Your task to perform on an android device: Show me recent news Image 0: 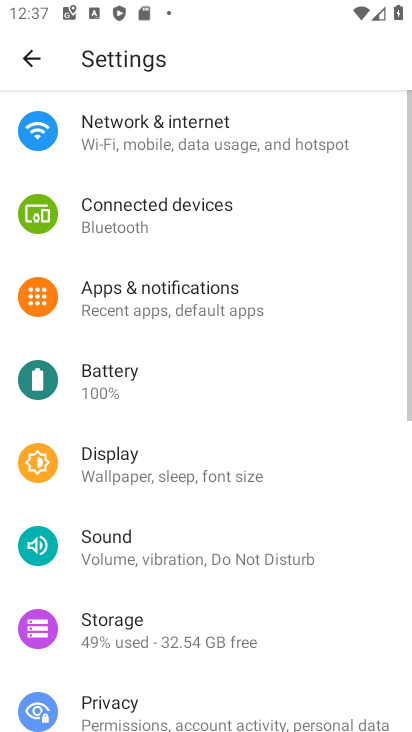
Step 0: press home button
Your task to perform on an android device: Show me recent news Image 1: 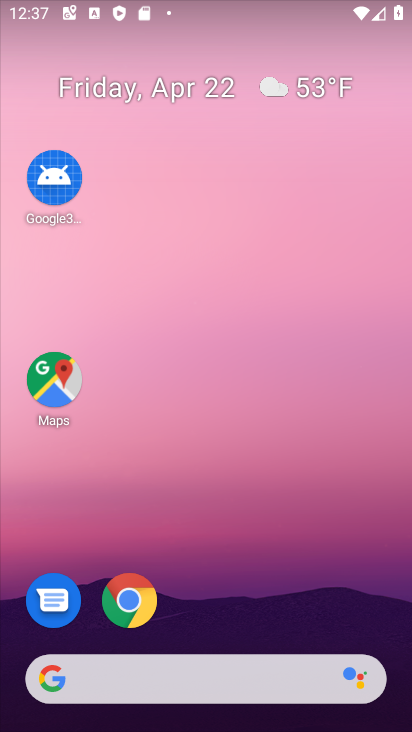
Step 1: drag from (222, 548) to (220, 12)
Your task to perform on an android device: Show me recent news Image 2: 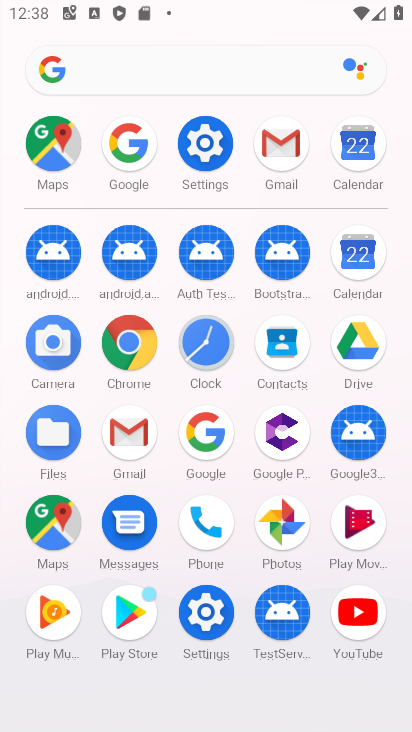
Step 2: click (211, 433)
Your task to perform on an android device: Show me recent news Image 3: 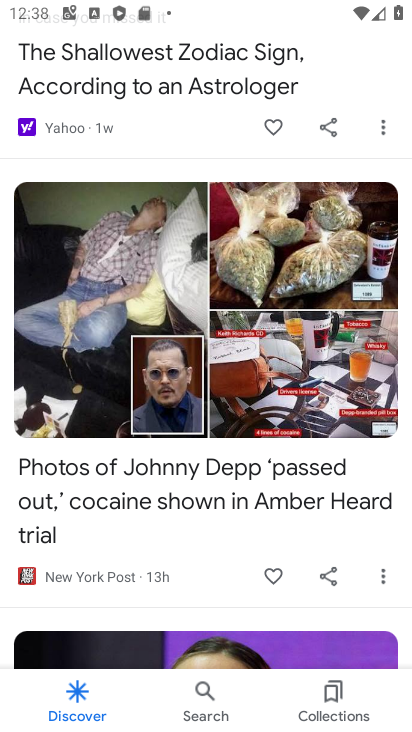
Step 3: task complete